Your task to perform on an android device: see creations saved in the google photos Image 0: 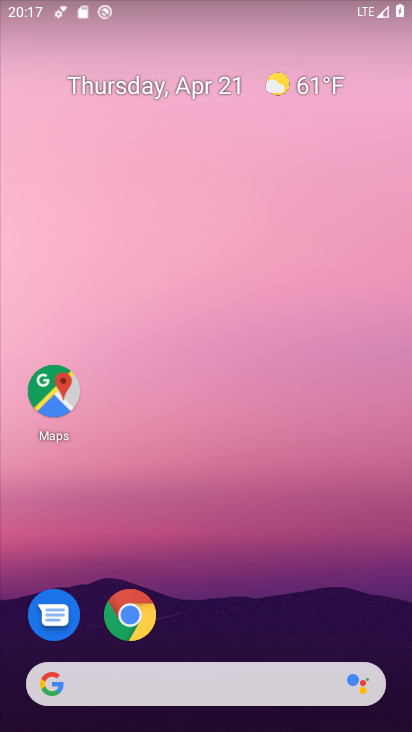
Step 0: drag from (215, 625) to (233, 89)
Your task to perform on an android device: see creations saved in the google photos Image 1: 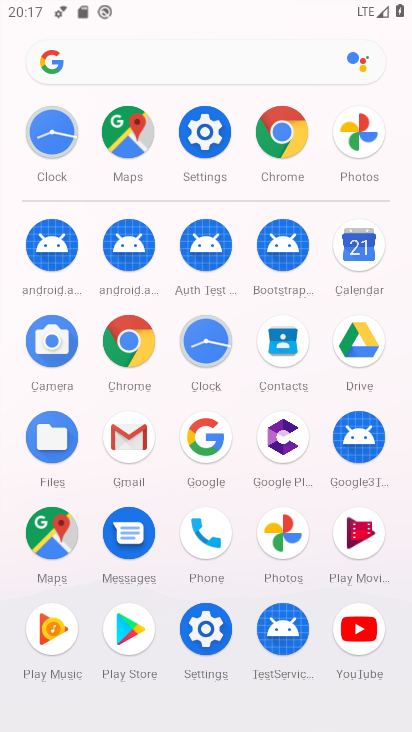
Step 1: click (278, 530)
Your task to perform on an android device: see creations saved in the google photos Image 2: 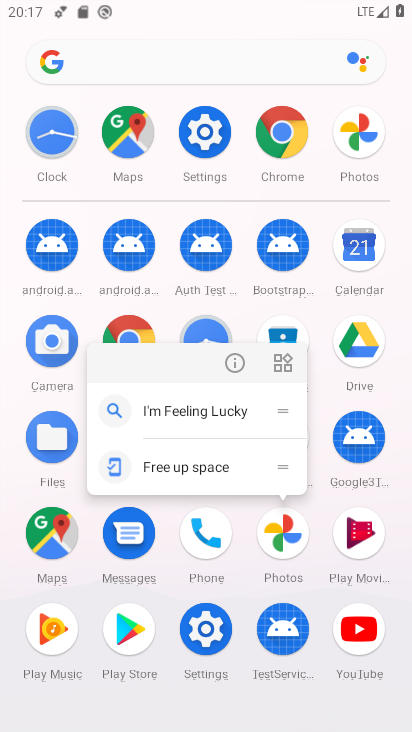
Step 2: click (230, 355)
Your task to perform on an android device: see creations saved in the google photos Image 3: 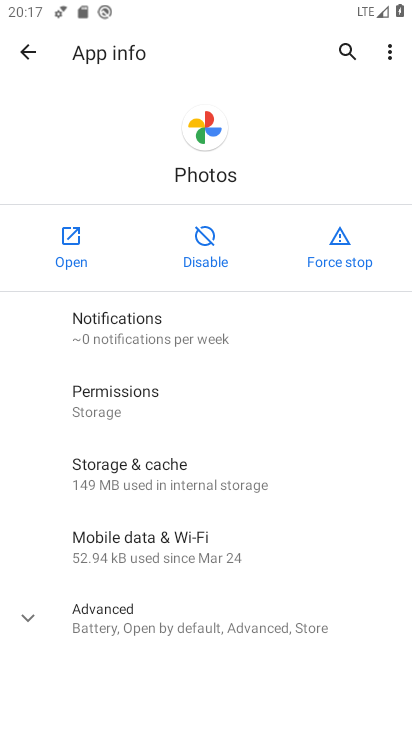
Step 3: click (84, 250)
Your task to perform on an android device: see creations saved in the google photos Image 4: 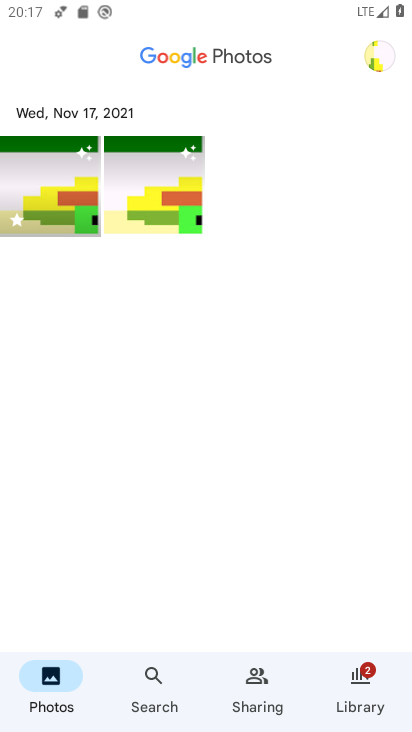
Step 4: click (165, 674)
Your task to perform on an android device: see creations saved in the google photos Image 5: 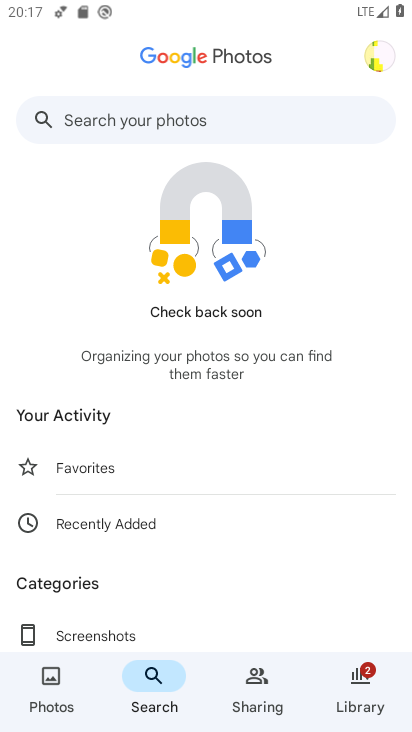
Step 5: drag from (176, 573) to (199, 133)
Your task to perform on an android device: see creations saved in the google photos Image 6: 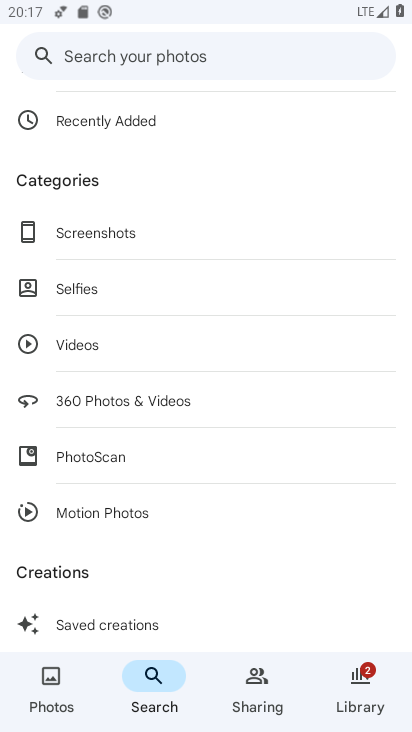
Step 6: drag from (170, 549) to (174, 186)
Your task to perform on an android device: see creations saved in the google photos Image 7: 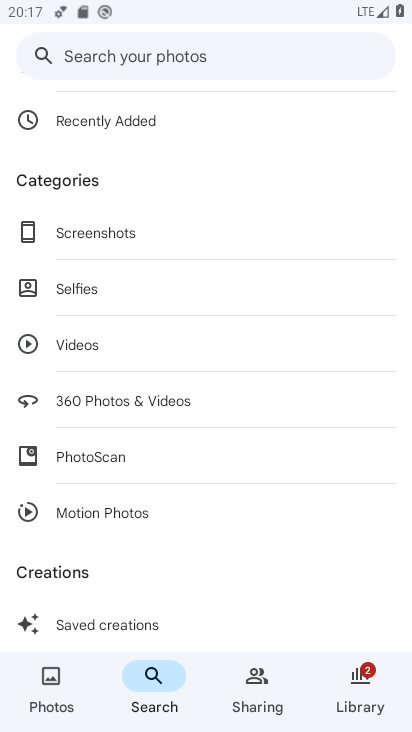
Step 7: click (121, 630)
Your task to perform on an android device: see creations saved in the google photos Image 8: 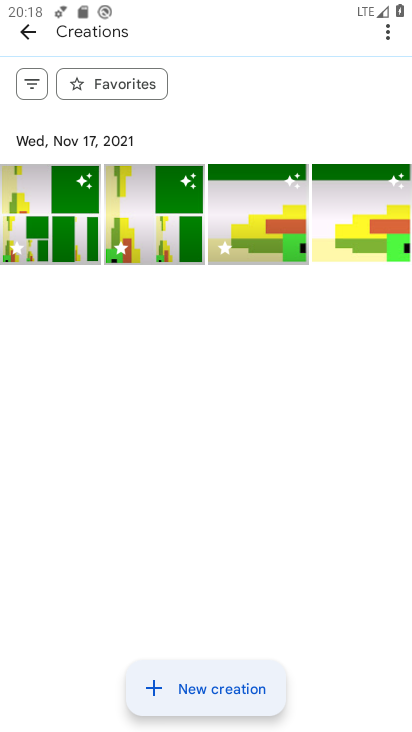
Step 8: click (167, 208)
Your task to perform on an android device: see creations saved in the google photos Image 9: 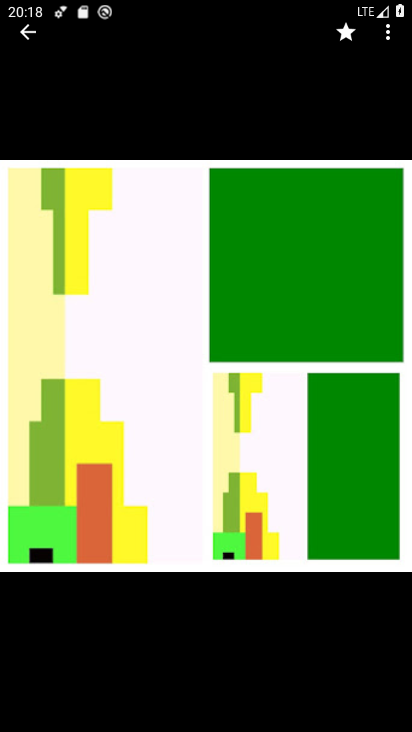
Step 9: task complete